Your task to perform on an android device: see creations saved in the google photos Image 0: 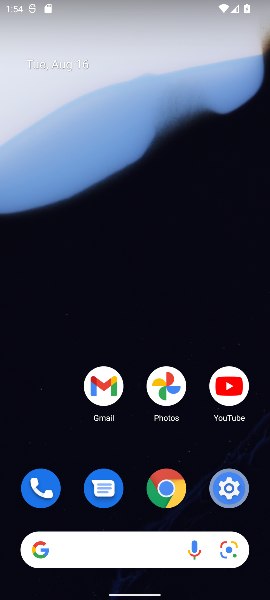
Step 0: drag from (66, 400) to (77, 13)
Your task to perform on an android device: see creations saved in the google photos Image 1: 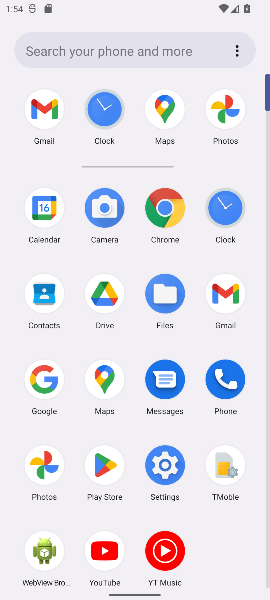
Step 1: click (44, 477)
Your task to perform on an android device: see creations saved in the google photos Image 2: 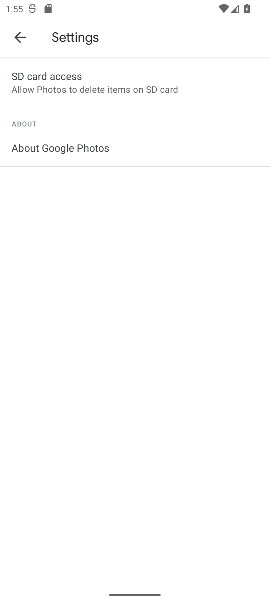
Step 2: task complete